Your task to perform on an android device: remove spam from my inbox in the gmail app Image 0: 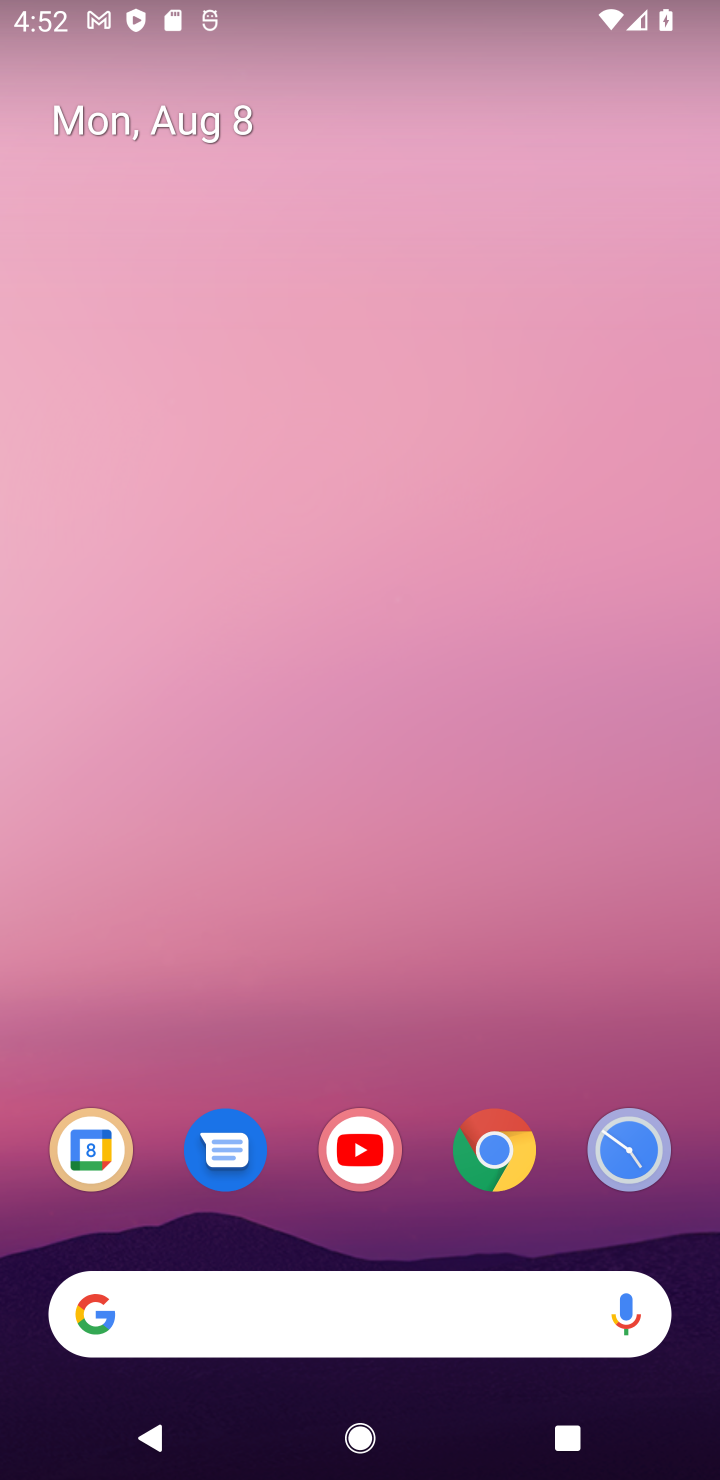
Step 0: drag from (437, 1223) to (436, 231)
Your task to perform on an android device: remove spam from my inbox in the gmail app Image 1: 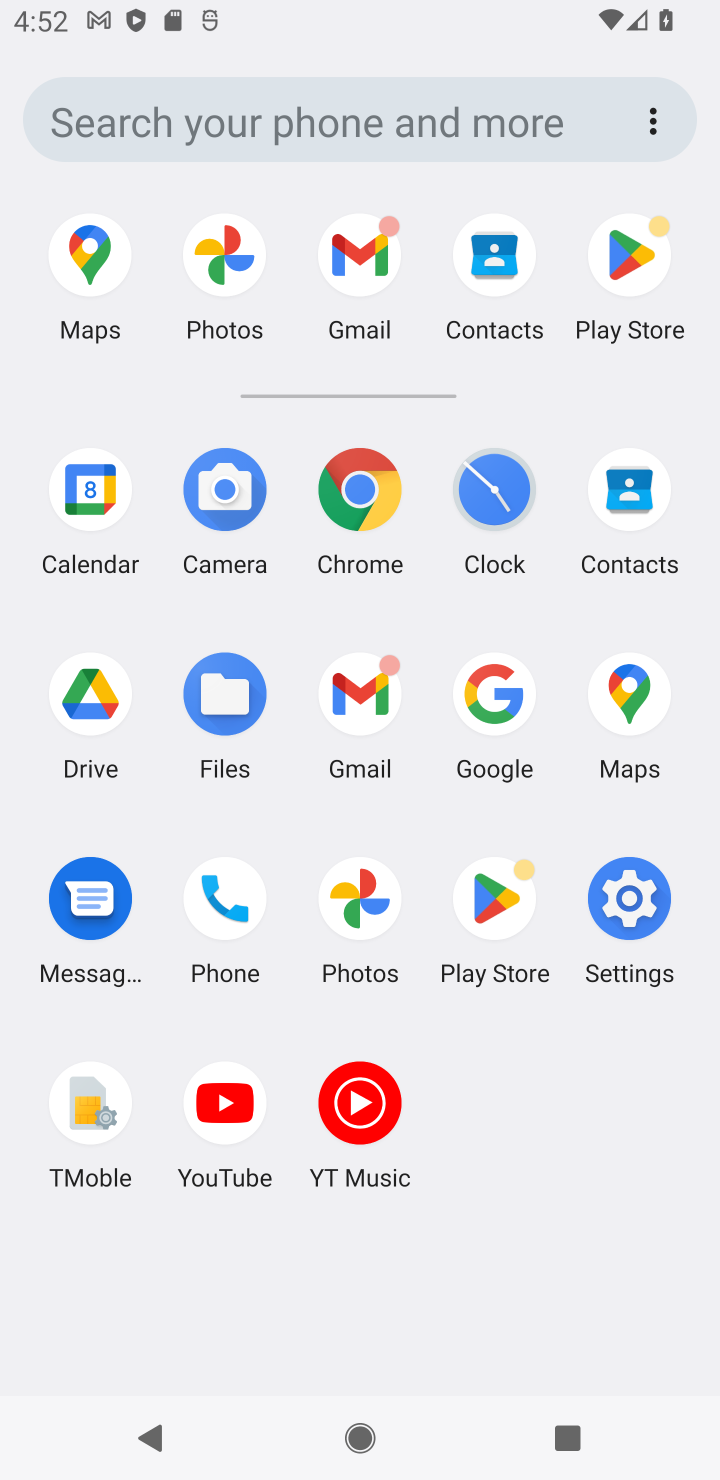
Step 1: click (369, 669)
Your task to perform on an android device: remove spam from my inbox in the gmail app Image 2: 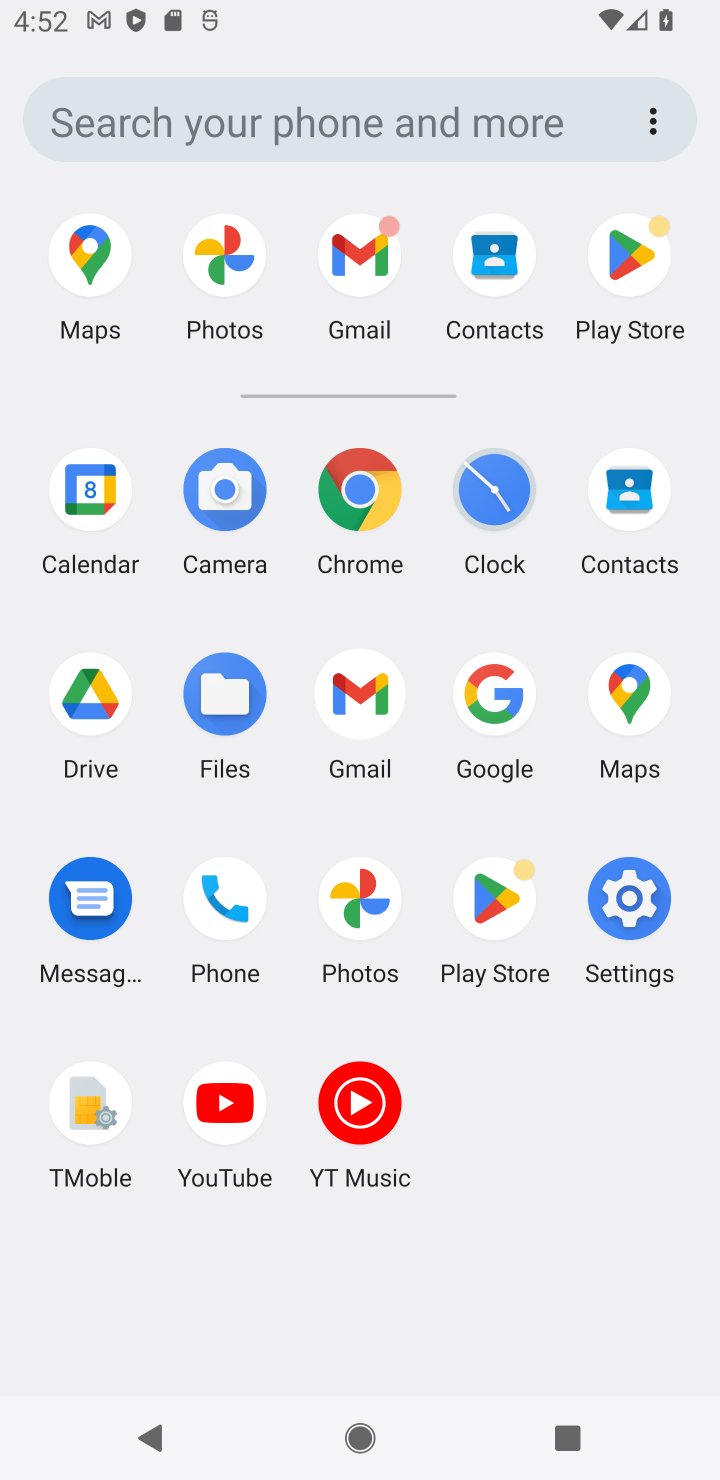
Step 2: task complete